Your task to perform on an android device: Go to Google maps Image 0: 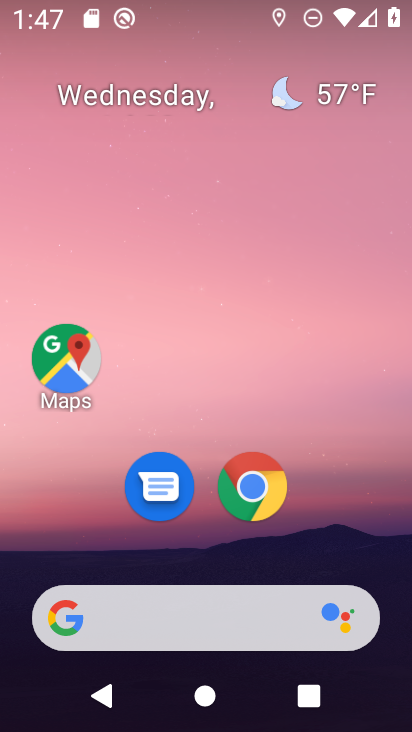
Step 0: drag from (374, 538) to (380, 91)
Your task to perform on an android device: Go to Google maps Image 1: 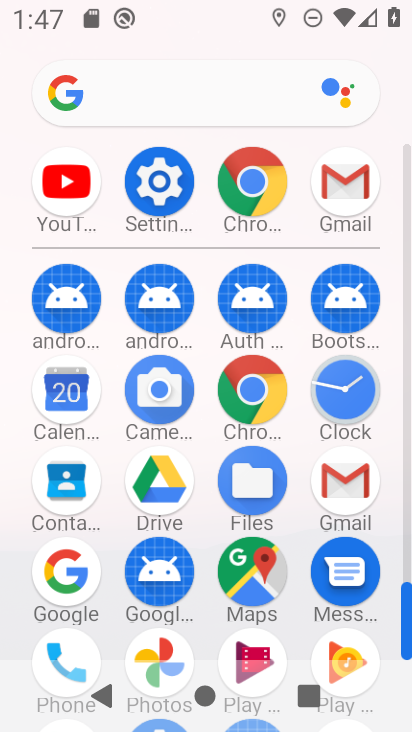
Step 1: click (239, 568)
Your task to perform on an android device: Go to Google maps Image 2: 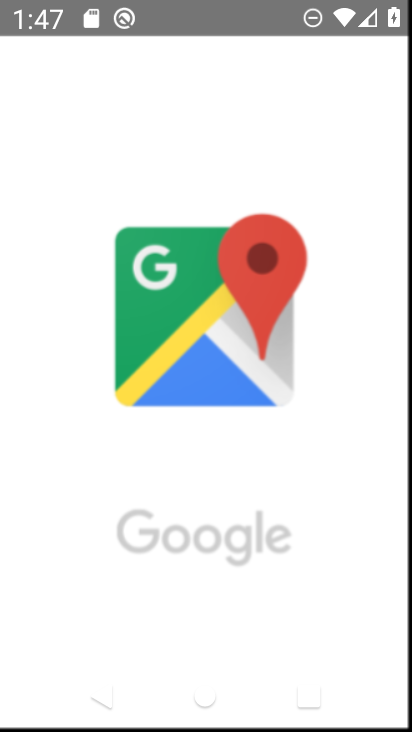
Step 2: task complete